Your task to perform on an android device: empty trash in google photos Image 0: 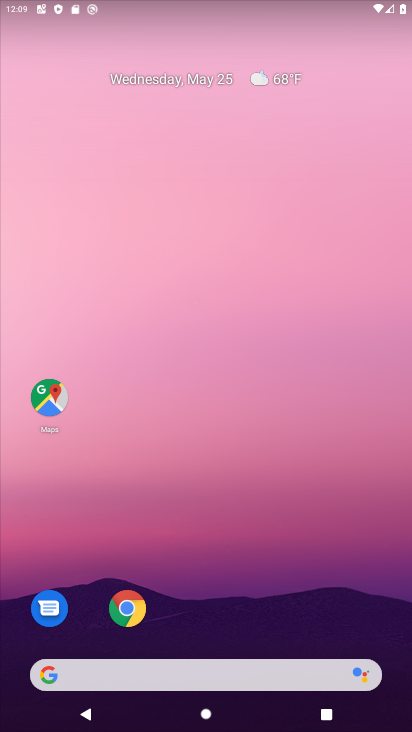
Step 0: drag from (327, 566) to (331, 20)
Your task to perform on an android device: empty trash in google photos Image 1: 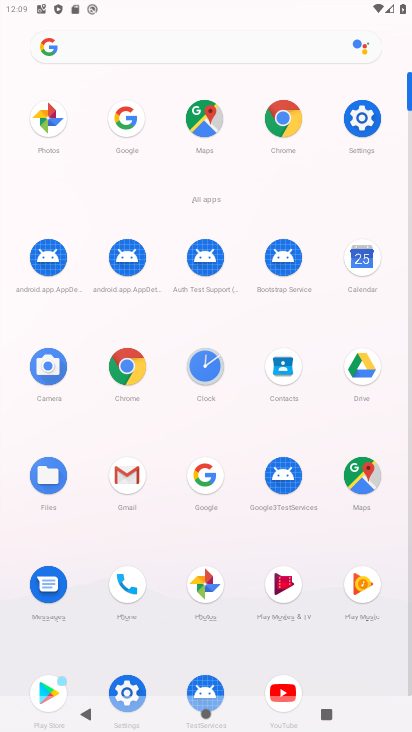
Step 1: click (205, 573)
Your task to perform on an android device: empty trash in google photos Image 2: 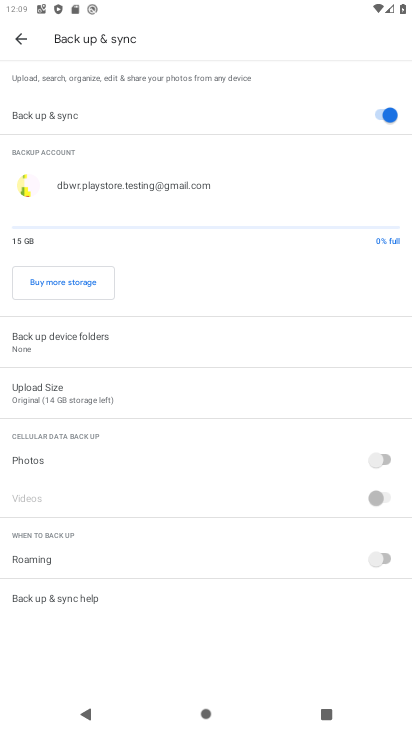
Step 2: click (12, 32)
Your task to perform on an android device: empty trash in google photos Image 3: 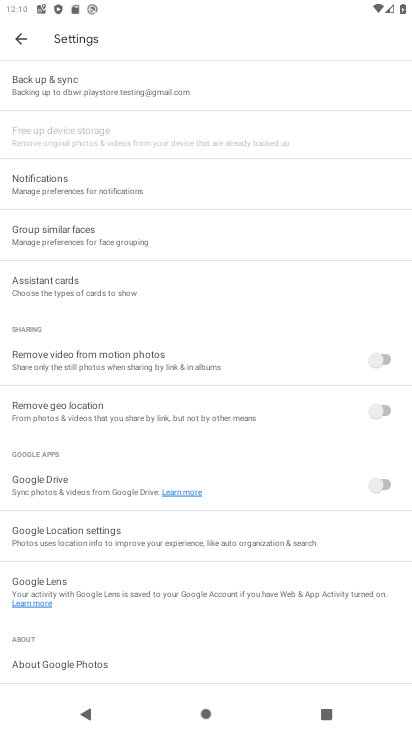
Step 3: click (13, 33)
Your task to perform on an android device: empty trash in google photos Image 4: 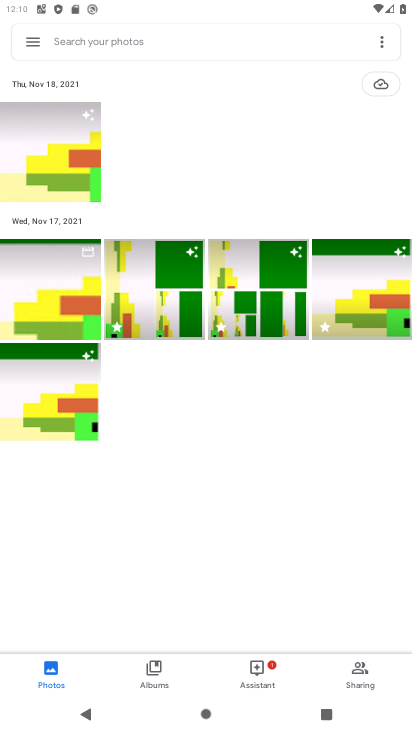
Step 4: click (21, 35)
Your task to perform on an android device: empty trash in google photos Image 5: 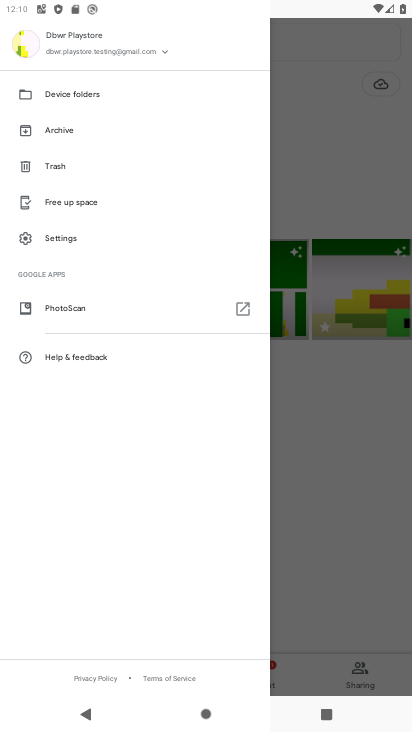
Step 5: click (92, 160)
Your task to perform on an android device: empty trash in google photos Image 6: 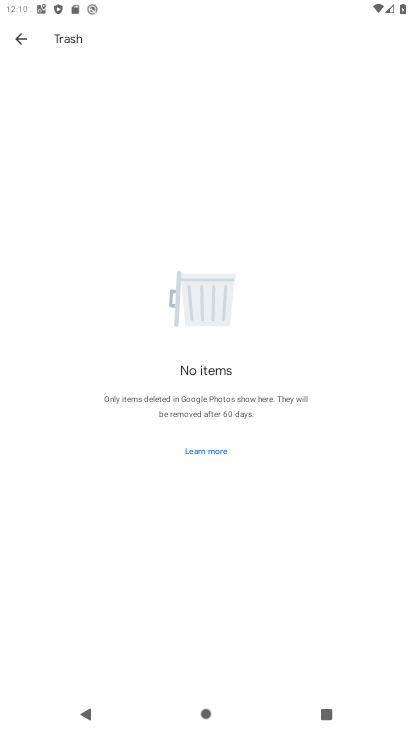
Step 6: task complete